Your task to perform on an android device: What's the weather going to be tomorrow? Image 0: 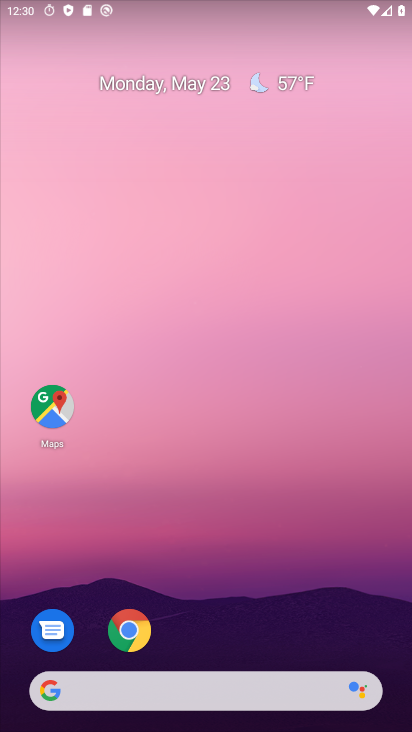
Step 0: drag from (159, 280) to (194, 380)
Your task to perform on an android device: What's the weather going to be tomorrow? Image 1: 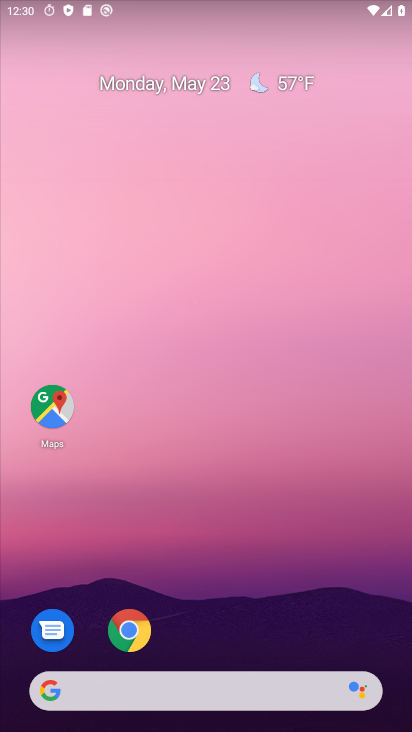
Step 1: drag from (256, 556) to (195, 9)
Your task to perform on an android device: What's the weather going to be tomorrow? Image 2: 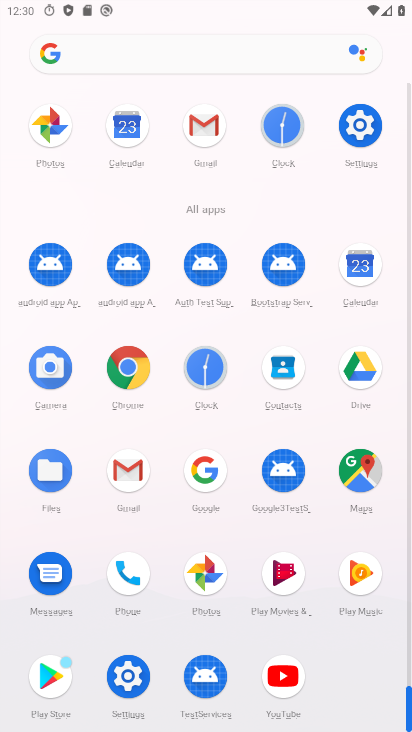
Step 2: drag from (9, 567) to (24, 198)
Your task to perform on an android device: What's the weather going to be tomorrow? Image 3: 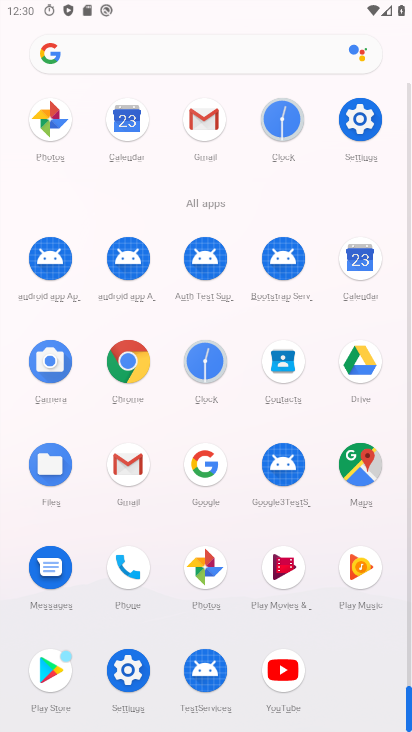
Step 3: drag from (9, 201) to (25, 587)
Your task to perform on an android device: What's the weather going to be tomorrow? Image 4: 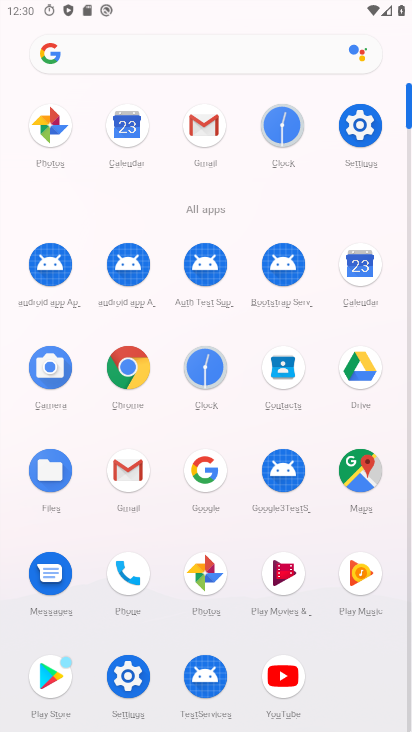
Step 4: drag from (22, 568) to (40, 228)
Your task to perform on an android device: What's the weather going to be tomorrow? Image 5: 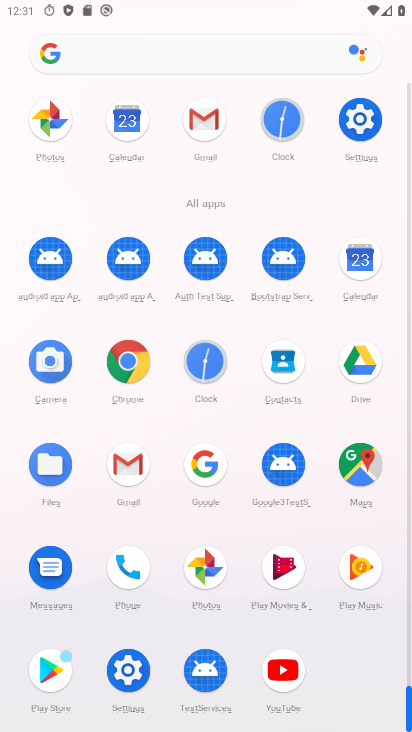
Step 5: click (125, 356)
Your task to perform on an android device: What's the weather going to be tomorrow? Image 6: 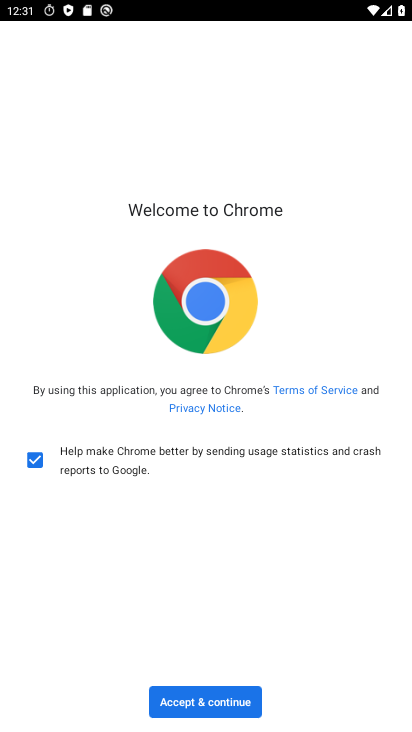
Step 6: click (209, 692)
Your task to perform on an android device: What's the weather going to be tomorrow? Image 7: 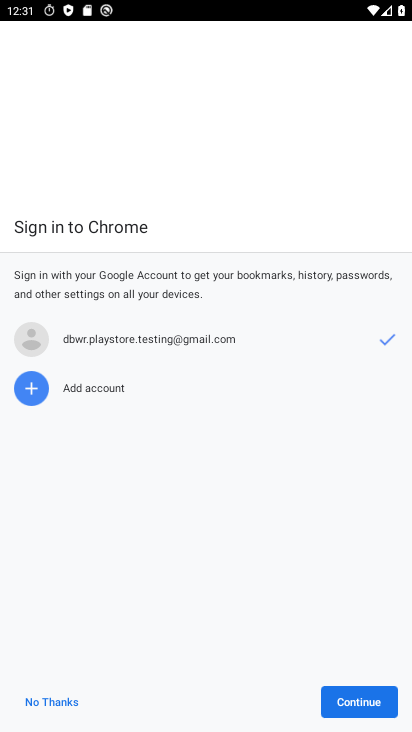
Step 7: click (359, 716)
Your task to perform on an android device: What's the weather going to be tomorrow? Image 8: 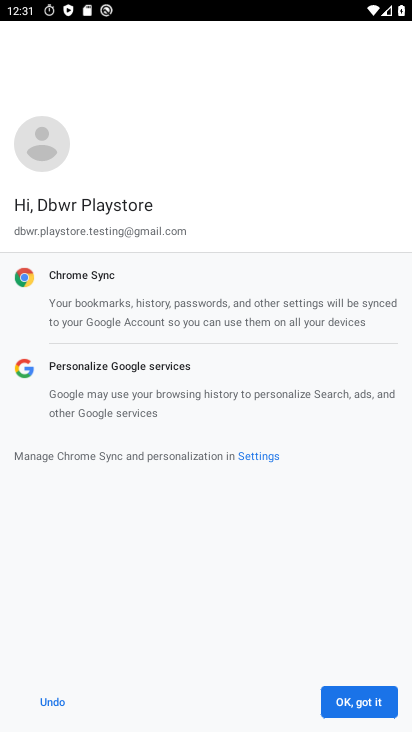
Step 8: click (364, 703)
Your task to perform on an android device: What's the weather going to be tomorrow? Image 9: 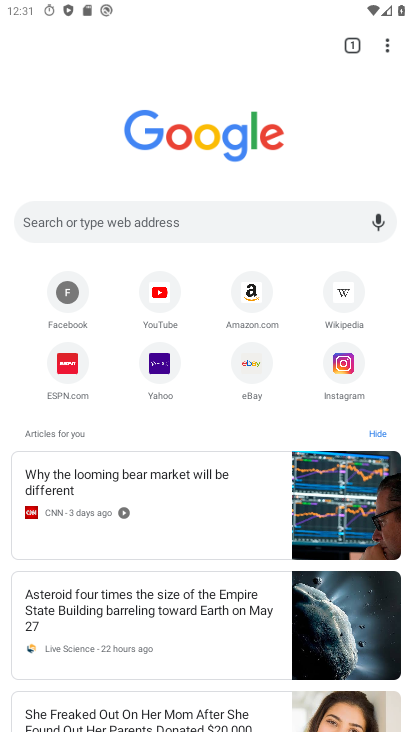
Step 9: click (175, 217)
Your task to perform on an android device: What's the weather going to be tomorrow? Image 10: 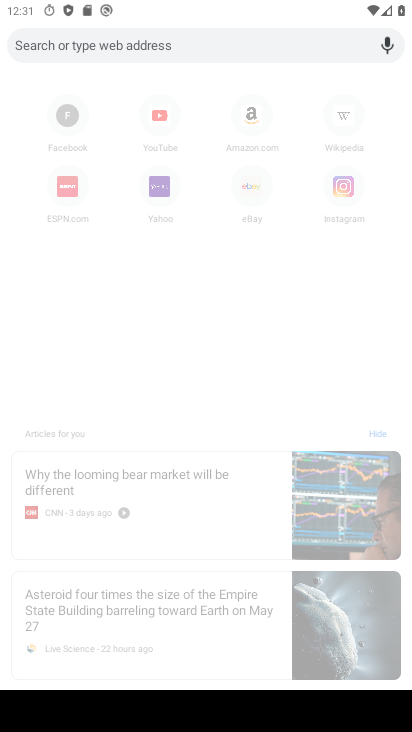
Step 10: type "What's the weather going to be tomorrow?"
Your task to perform on an android device: What's the weather going to be tomorrow? Image 11: 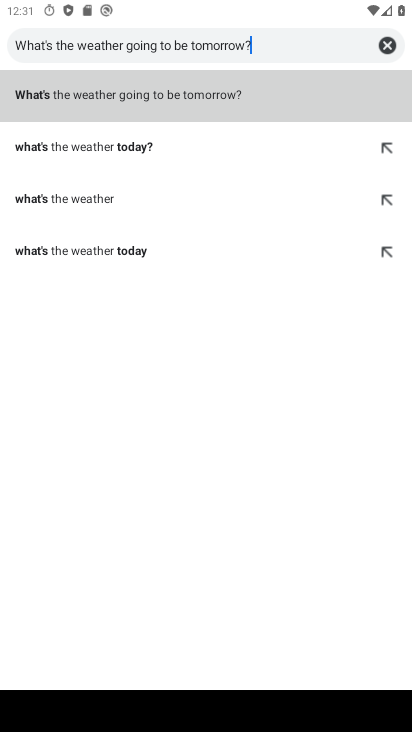
Step 11: type ""
Your task to perform on an android device: What's the weather going to be tomorrow? Image 12: 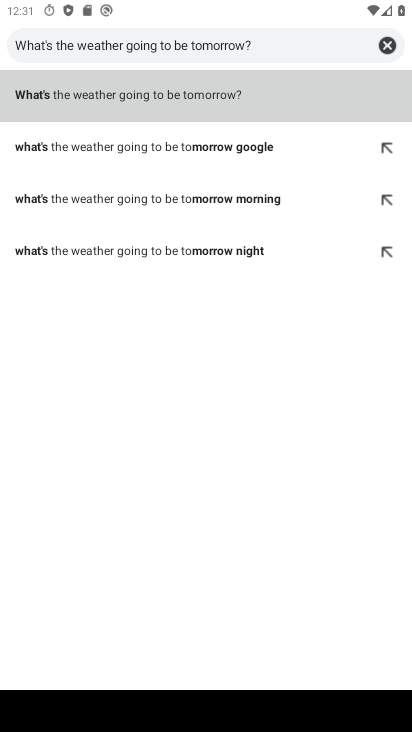
Step 12: click (132, 86)
Your task to perform on an android device: What's the weather going to be tomorrow? Image 13: 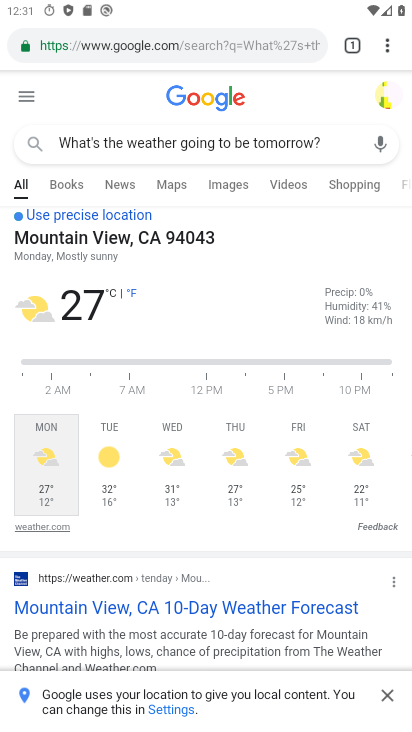
Step 13: task complete